Your task to perform on an android device: open app "Google Docs" Image 0: 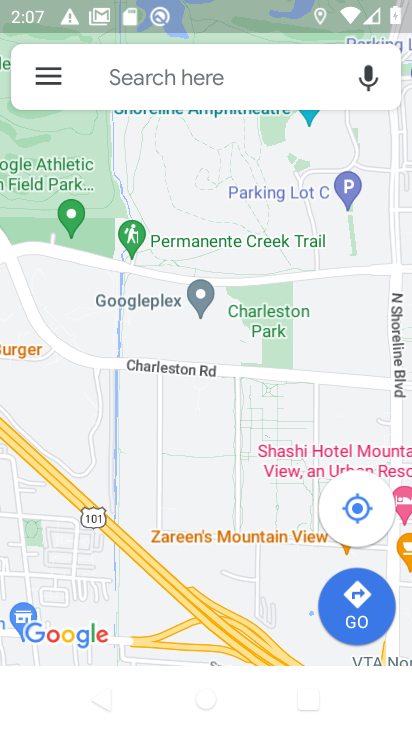
Step 0: press home button
Your task to perform on an android device: open app "Google Docs" Image 1: 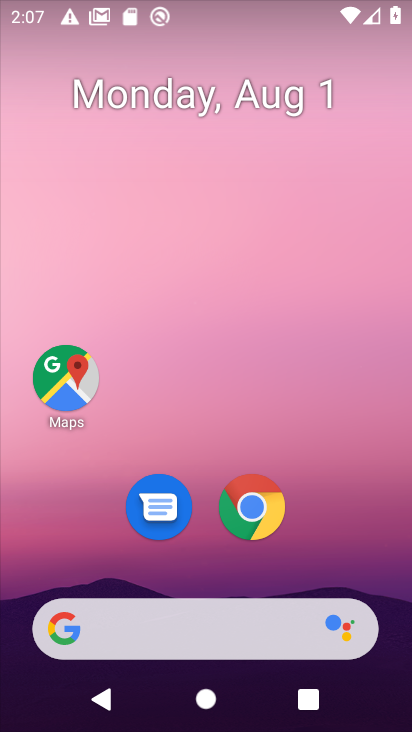
Step 1: drag from (219, 490) to (177, 6)
Your task to perform on an android device: open app "Google Docs" Image 2: 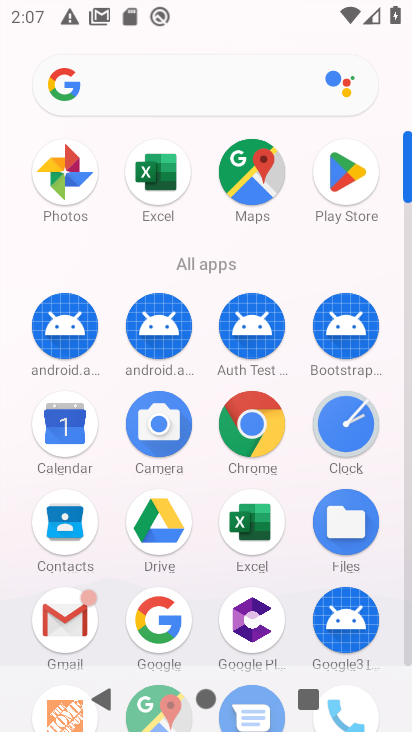
Step 2: click (356, 191)
Your task to perform on an android device: open app "Google Docs" Image 3: 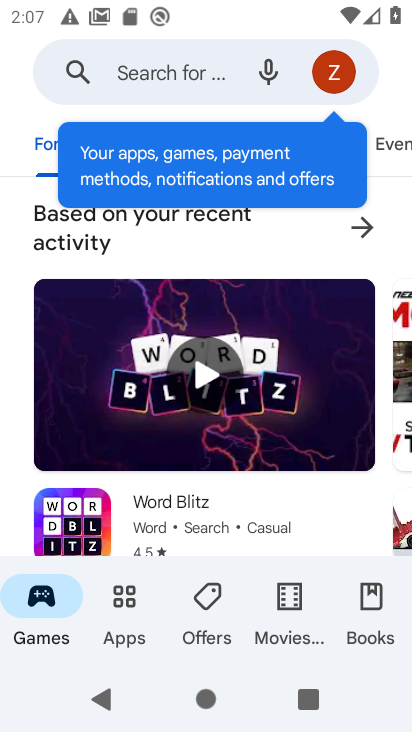
Step 3: click (154, 66)
Your task to perform on an android device: open app "Google Docs" Image 4: 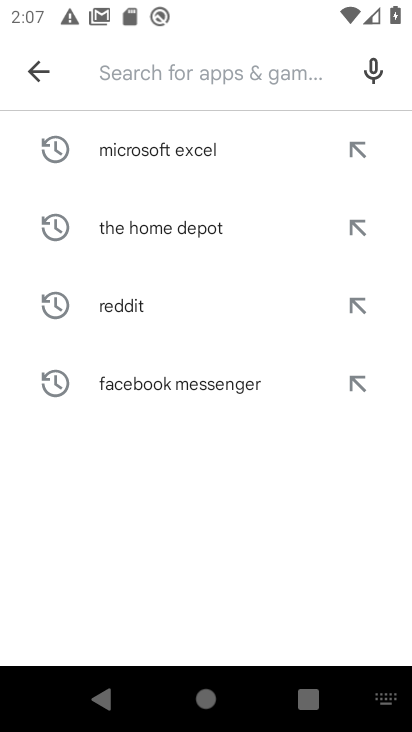
Step 4: type "goggle docs"
Your task to perform on an android device: open app "Google Docs" Image 5: 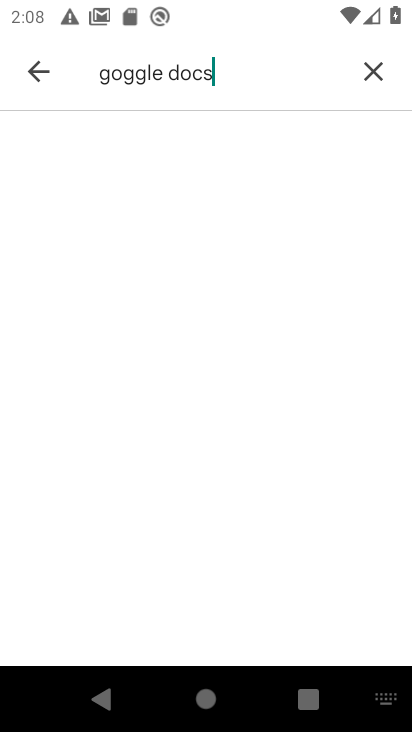
Step 5: click (208, 175)
Your task to perform on an android device: open app "Google Docs" Image 6: 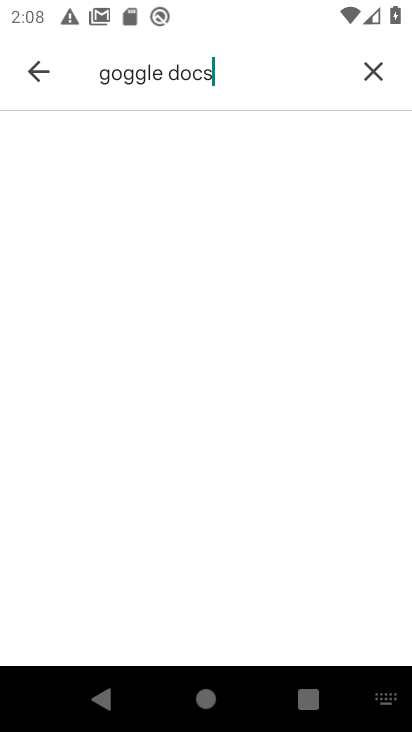
Step 6: task complete